Your task to perform on an android device: check android version Image 0: 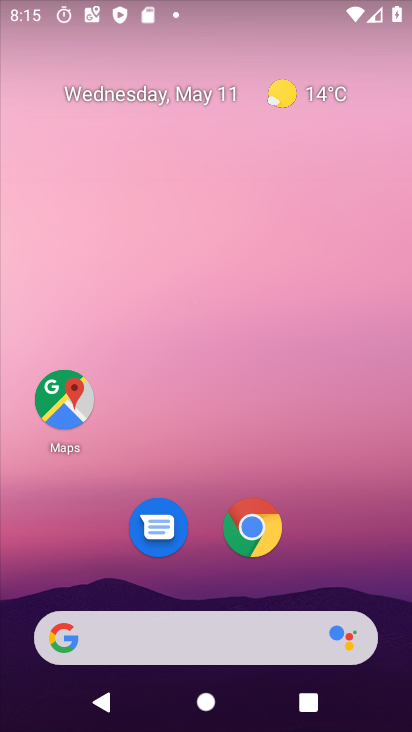
Step 0: drag from (184, 568) to (213, 117)
Your task to perform on an android device: check android version Image 1: 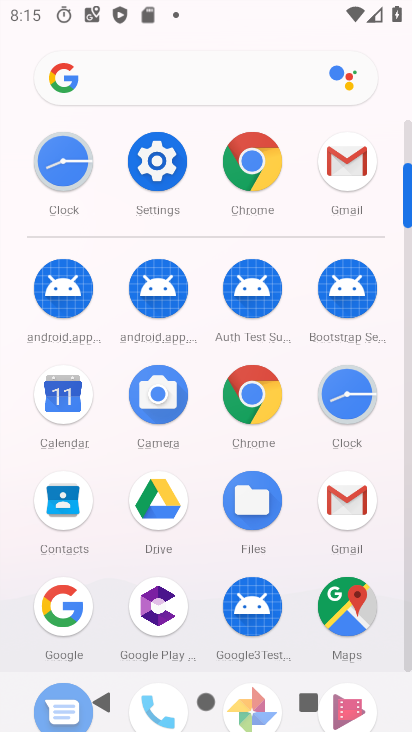
Step 1: click (142, 173)
Your task to perform on an android device: check android version Image 2: 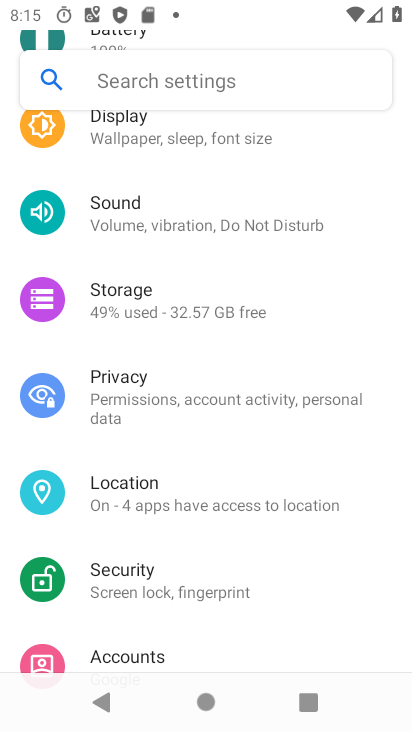
Step 2: drag from (188, 589) to (212, 277)
Your task to perform on an android device: check android version Image 3: 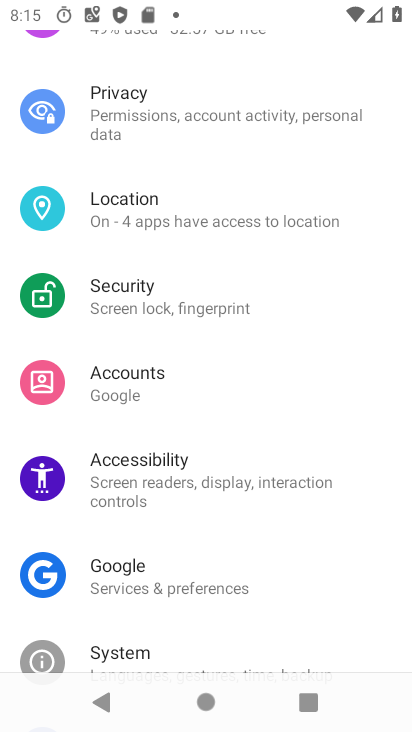
Step 3: drag from (239, 563) to (256, 315)
Your task to perform on an android device: check android version Image 4: 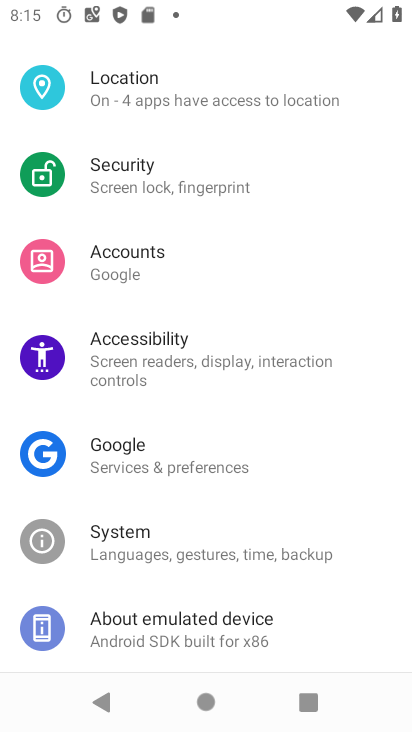
Step 4: click (194, 643)
Your task to perform on an android device: check android version Image 5: 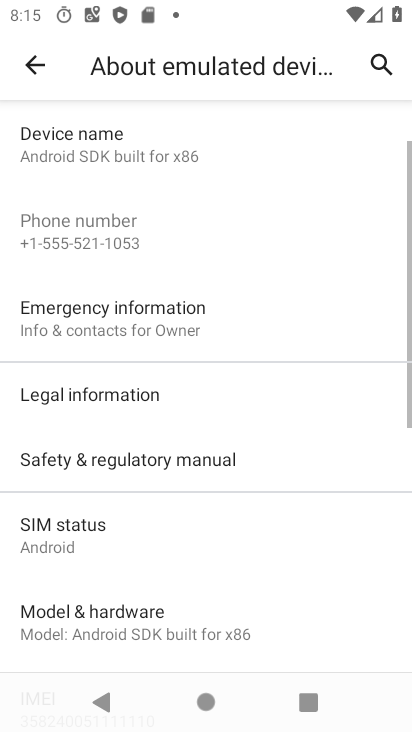
Step 5: drag from (210, 555) to (238, 409)
Your task to perform on an android device: check android version Image 6: 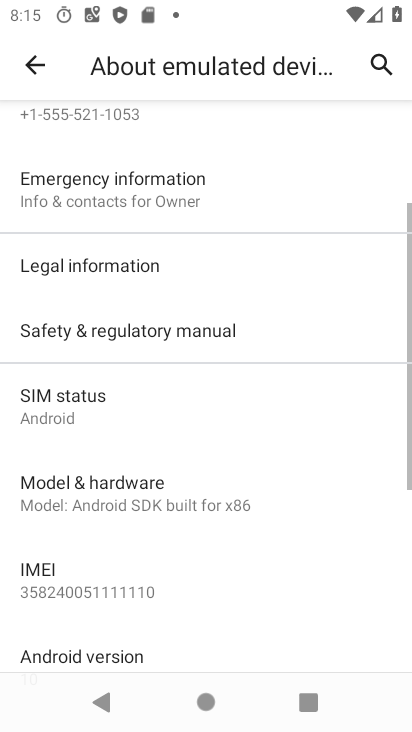
Step 6: drag from (223, 498) to (227, 353)
Your task to perform on an android device: check android version Image 7: 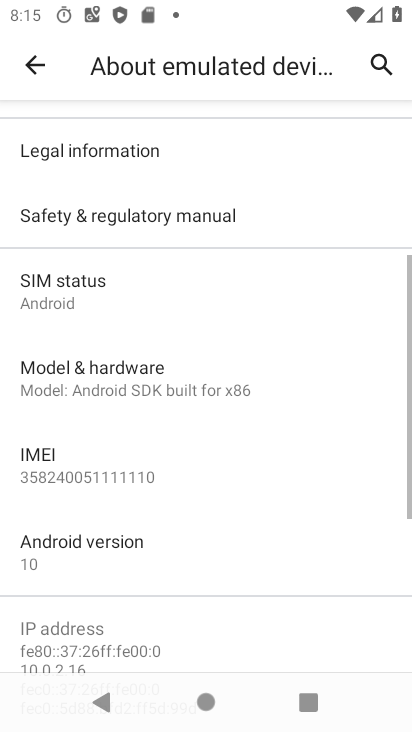
Step 7: click (119, 567)
Your task to perform on an android device: check android version Image 8: 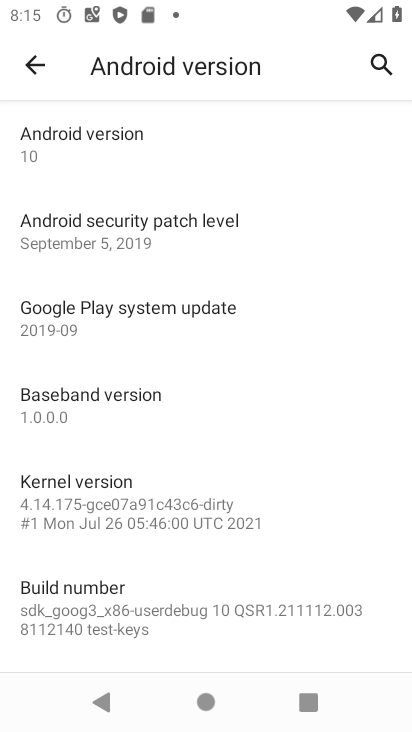
Step 8: click (207, 157)
Your task to perform on an android device: check android version Image 9: 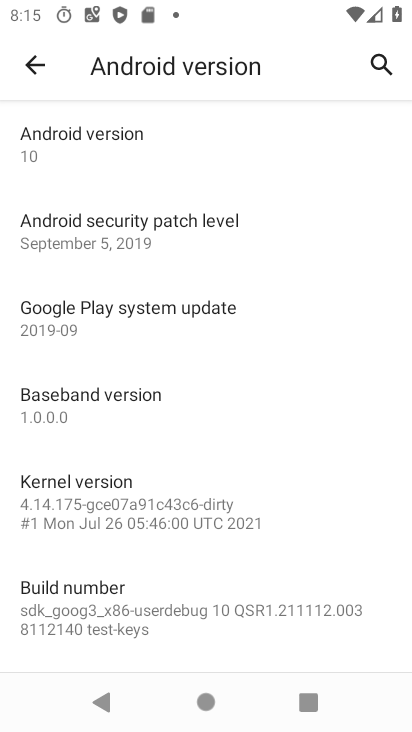
Step 9: task complete